Your task to perform on an android device: Open Google Chrome Image 0: 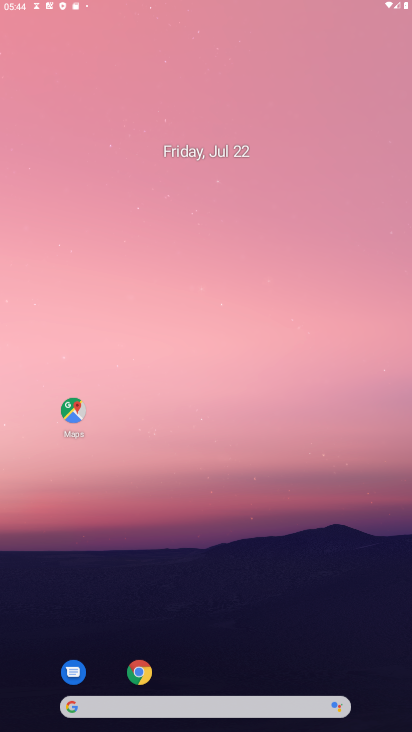
Step 0: press home button
Your task to perform on an android device: Open Google Chrome Image 1: 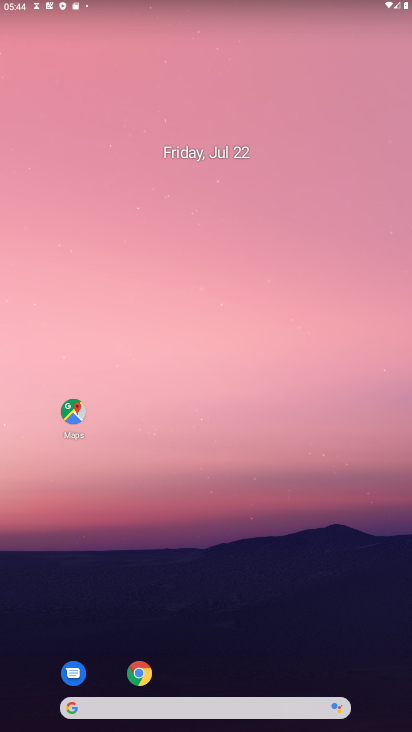
Step 1: drag from (251, 669) to (399, 4)
Your task to perform on an android device: Open Google Chrome Image 2: 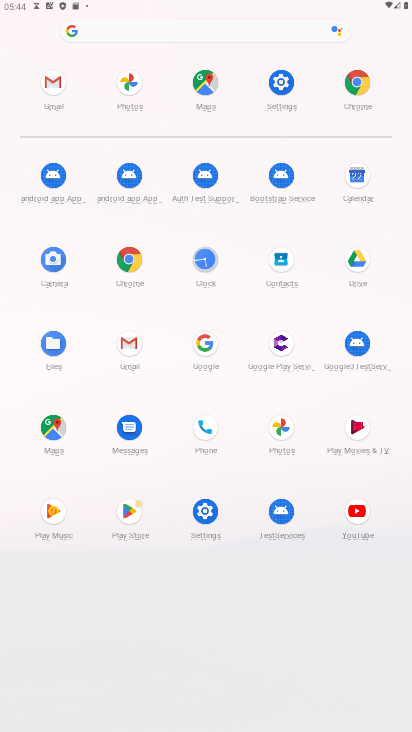
Step 2: click (362, 83)
Your task to perform on an android device: Open Google Chrome Image 3: 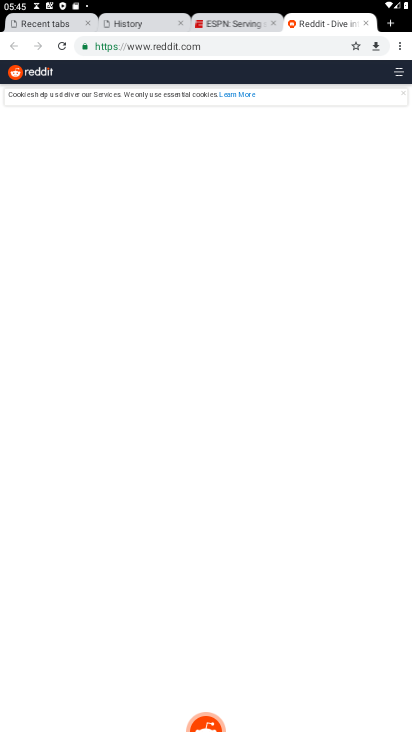
Step 3: task complete